Your task to perform on an android device: toggle airplane mode Image 0: 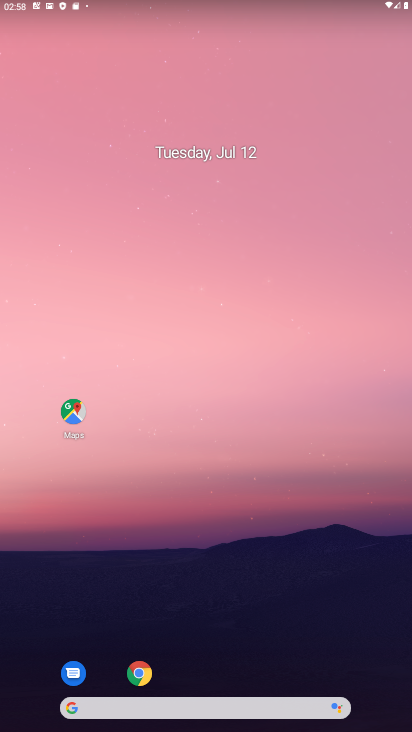
Step 0: press home button
Your task to perform on an android device: toggle airplane mode Image 1: 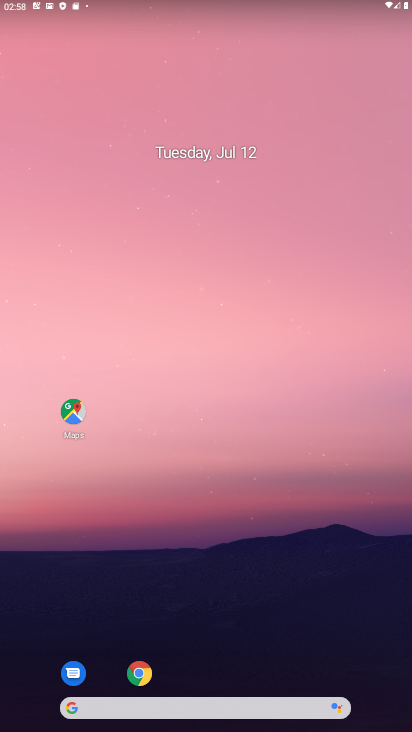
Step 1: drag from (235, 607) to (197, 105)
Your task to perform on an android device: toggle airplane mode Image 2: 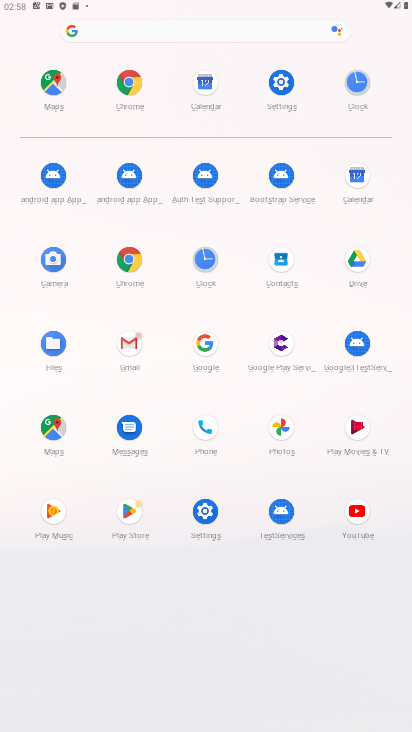
Step 2: drag from (280, 1) to (274, 318)
Your task to perform on an android device: toggle airplane mode Image 3: 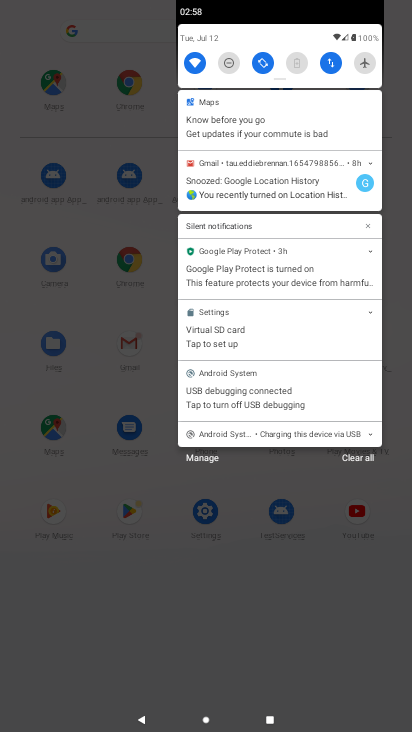
Step 3: click (364, 59)
Your task to perform on an android device: toggle airplane mode Image 4: 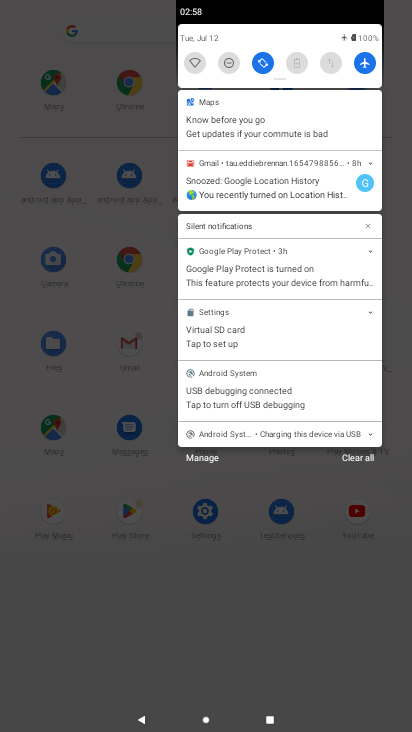
Step 4: task complete